Your task to perform on an android device: Go to Android settings Image 0: 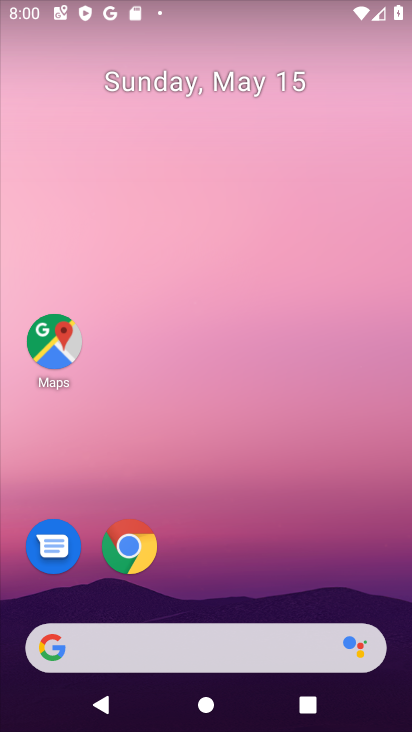
Step 0: drag from (259, 550) to (282, 40)
Your task to perform on an android device: Go to Android settings Image 1: 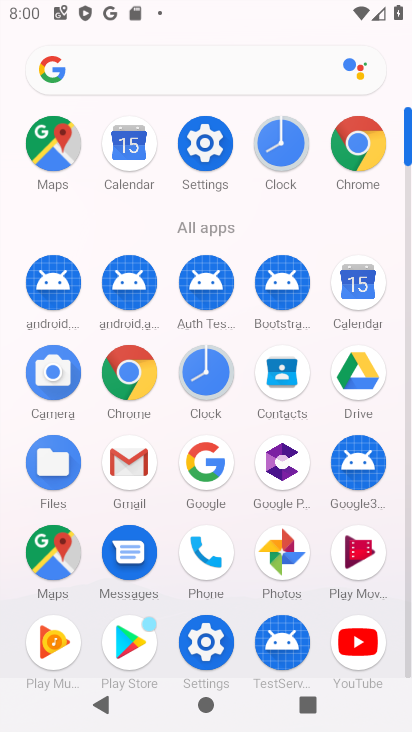
Step 1: click (199, 134)
Your task to perform on an android device: Go to Android settings Image 2: 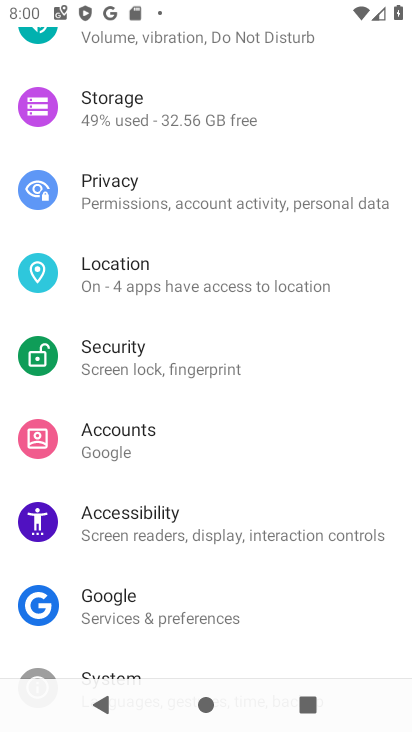
Step 2: drag from (200, 608) to (194, 335)
Your task to perform on an android device: Go to Android settings Image 3: 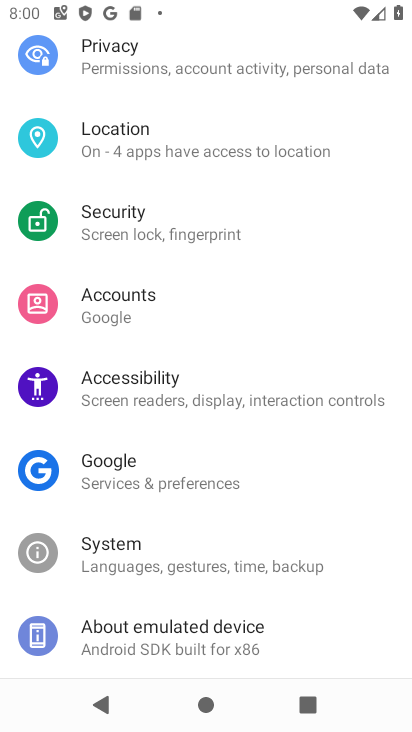
Step 3: click (134, 593)
Your task to perform on an android device: Go to Android settings Image 4: 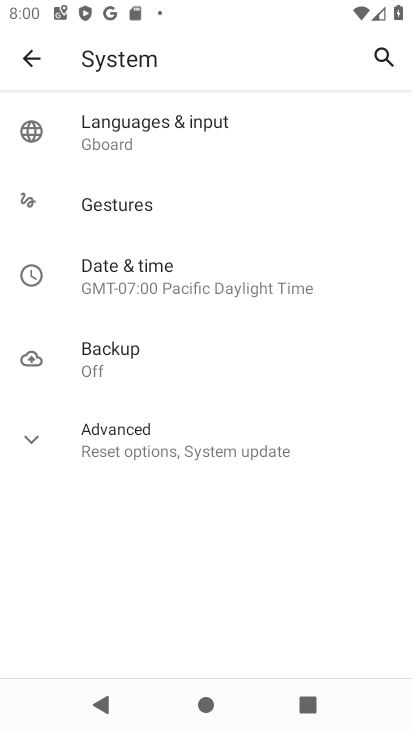
Step 4: click (34, 53)
Your task to perform on an android device: Go to Android settings Image 5: 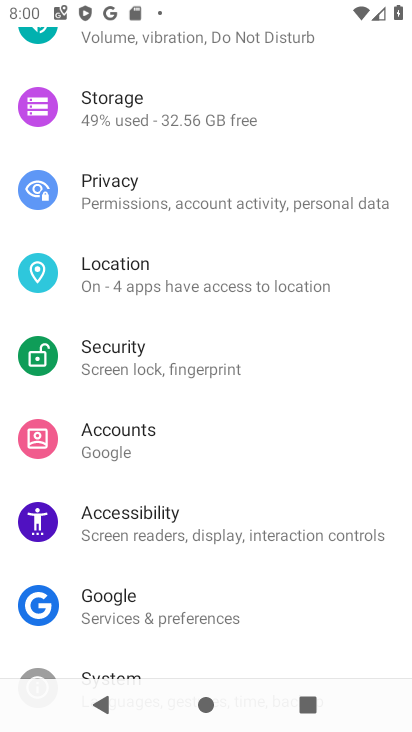
Step 5: drag from (142, 607) to (148, 337)
Your task to perform on an android device: Go to Android settings Image 6: 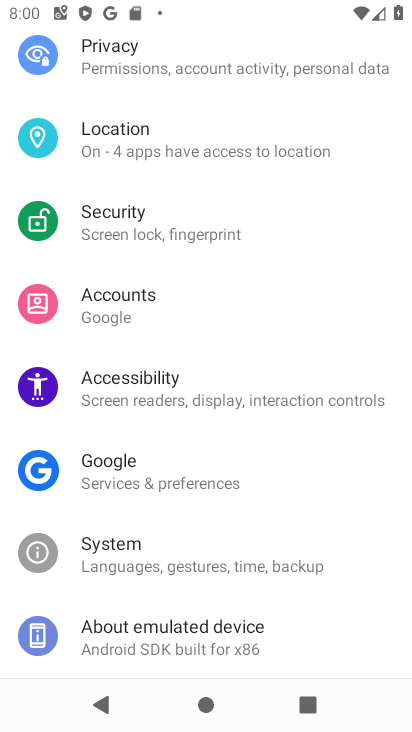
Step 6: click (144, 632)
Your task to perform on an android device: Go to Android settings Image 7: 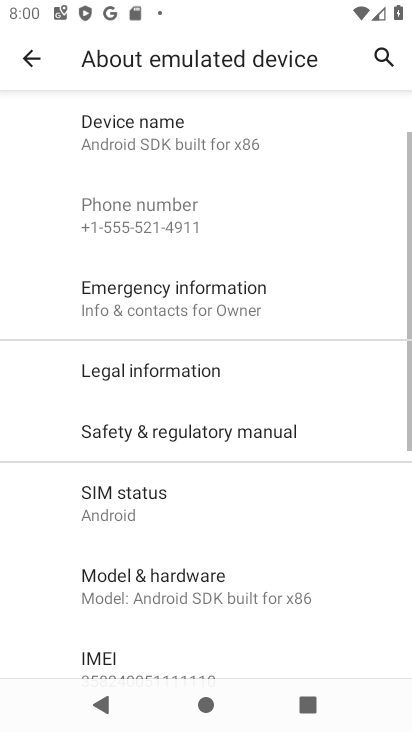
Step 7: task complete